Your task to perform on an android device: change the upload size in google photos Image 0: 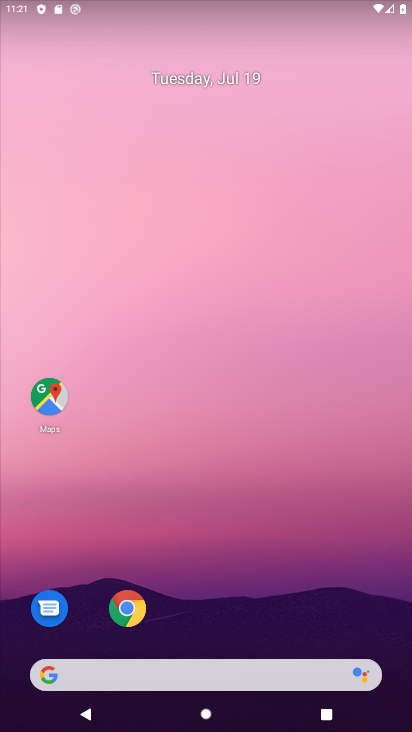
Step 0: drag from (199, 529) to (238, 9)
Your task to perform on an android device: change the upload size in google photos Image 1: 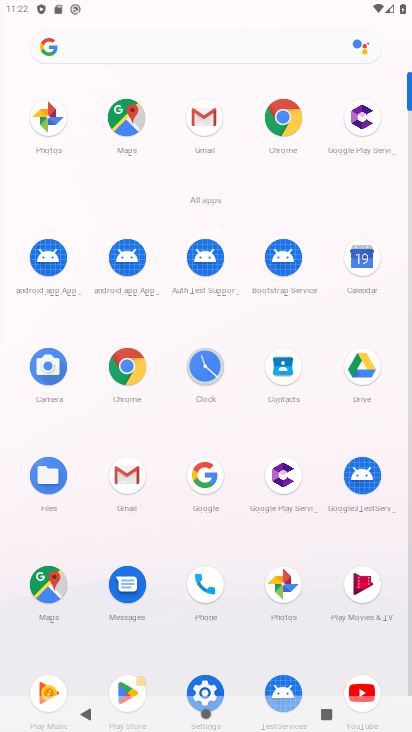
Step 1: click (286, 587)
Your task to perform on an android device: change the upload size in google photos Image 2: 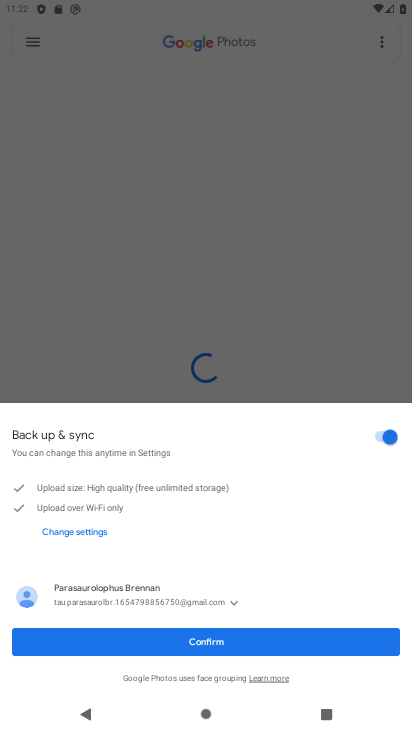
Step 2: click (211, 640)
Your task to perform on an android device: change the upload size in google photos Image 3: 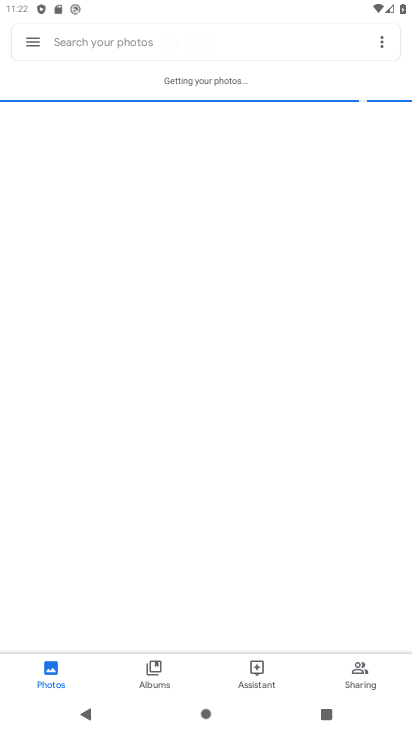
Step 3: click (38, 46)
Your task to perform on an android device: change the upload size in google photos Image 4: 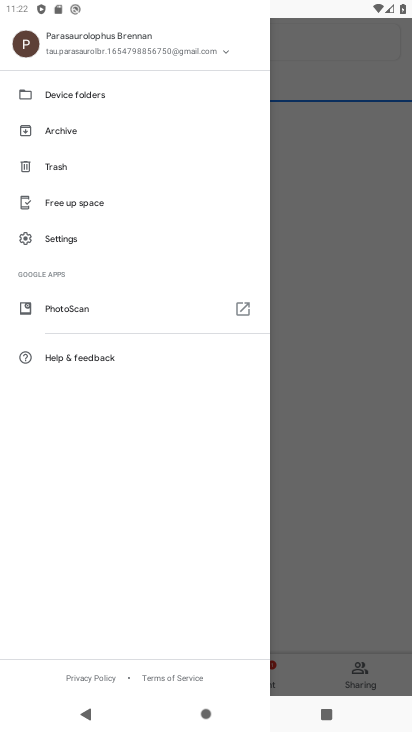
Step 4: click (69, 243)
Your task to perform on an android device: change the upload size in google photos Image 5: 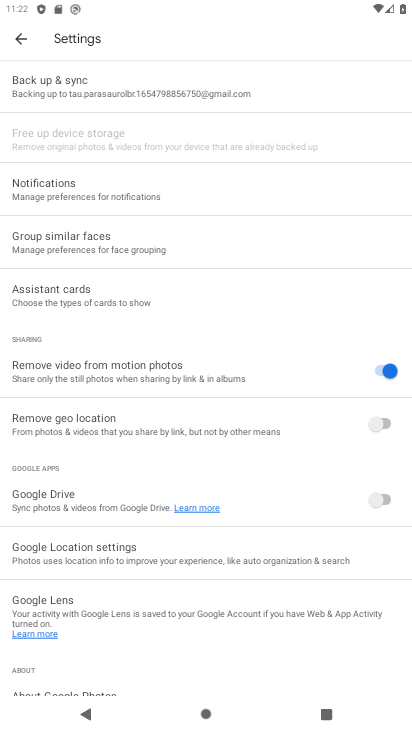
Step 5: click (108, 83)
Your task to perform on an android device: change the upload size in google photos Image 6: 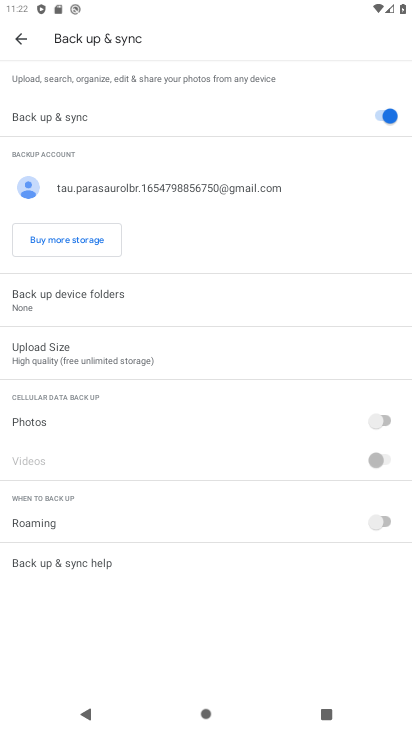
Step 6: task complete